Your task to perform on an android device: Open the map Image 0: 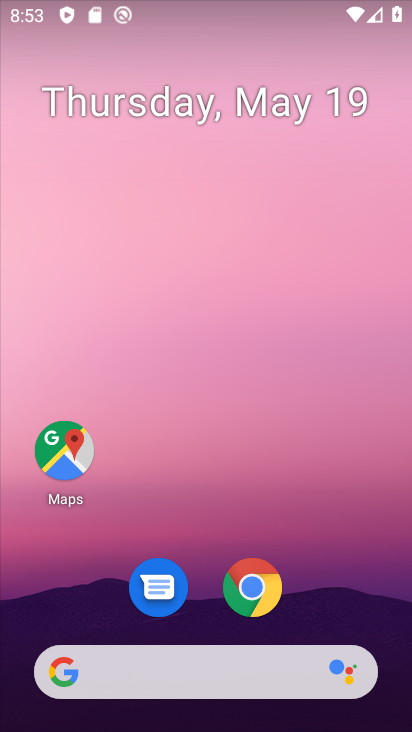
Step 0: click (77, 443)
Your task to perform on an android device: Open the map Image 1: 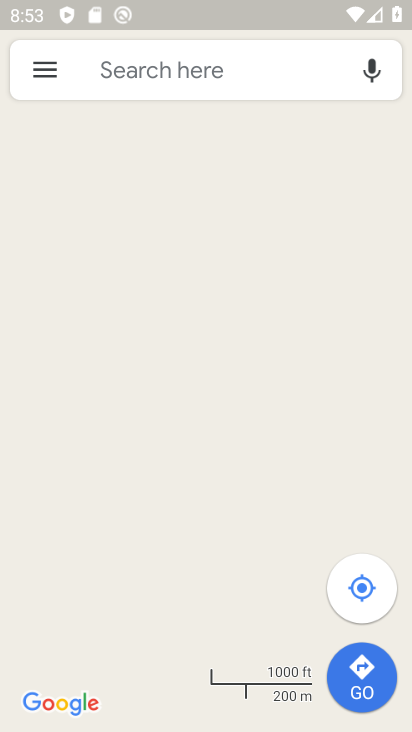
Step 1: task complete